Your task to perform on an android device: What's on my calendar today? Image 0: 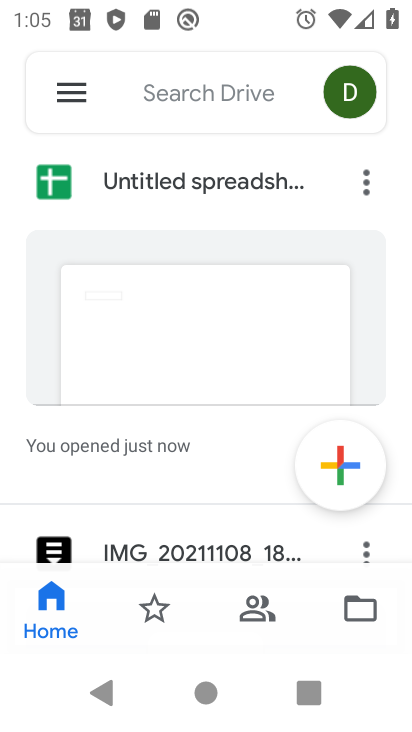
Step 0: press back button
Your task to perform on an android device: What's on my calendar today? Image 1: 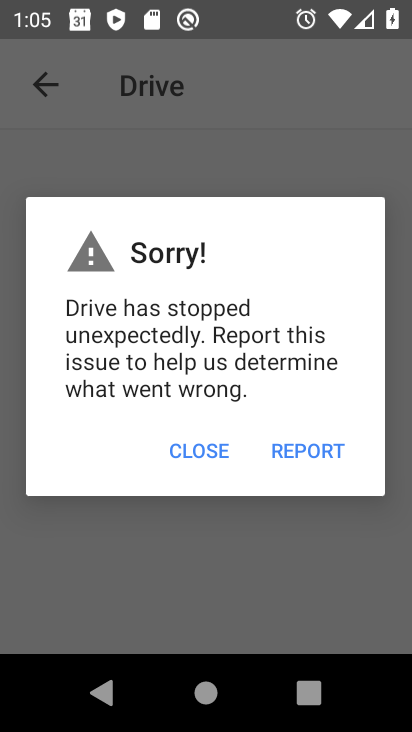
Step 1: press back button
Your task to perform on an android device: What's on my calendar today? Image 2: 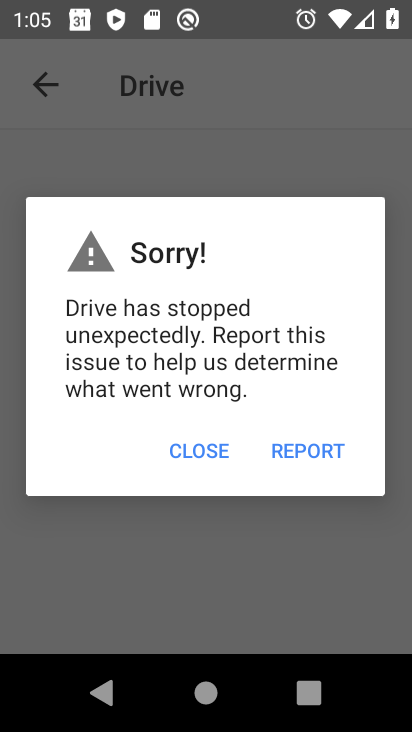
Step 2: press home button
Your task to perform on an android device: What's on my calendar today? Image 3: 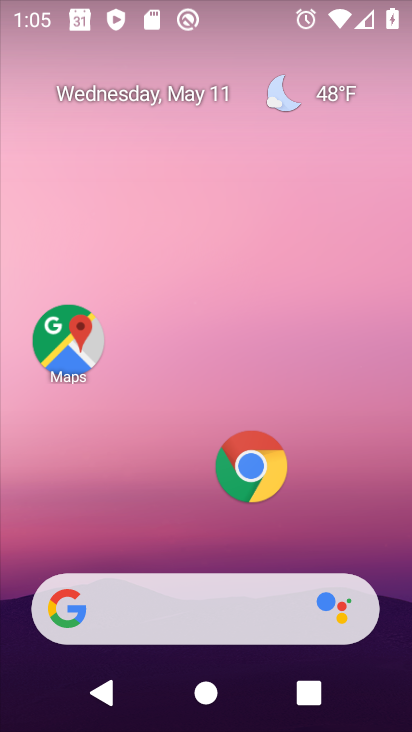
Step 3: drag from (127, 458) to (249, 4)
Your task to perform on an android device: What's on my calendar today? Image 4: 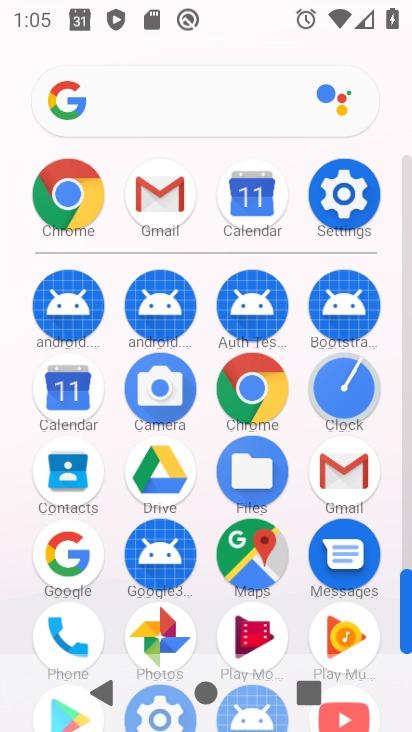
Step 4: click (258, 199)
Your task to perform on an android device: What's on my calendar today? Image 5: 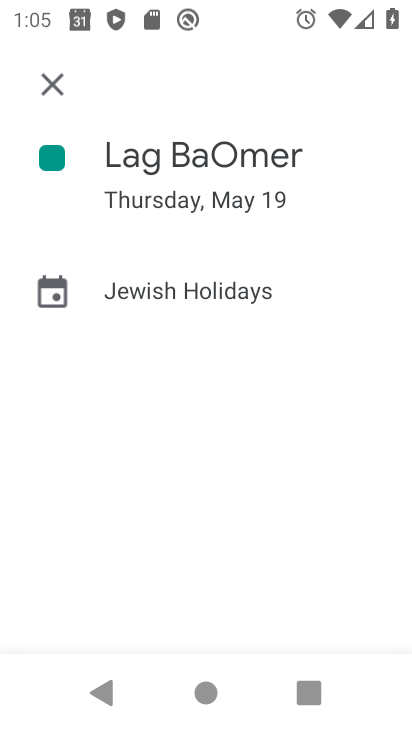
Step 5: click (50, 72)
Your task to perform on an android device: What's on my calendar today? Image 6: 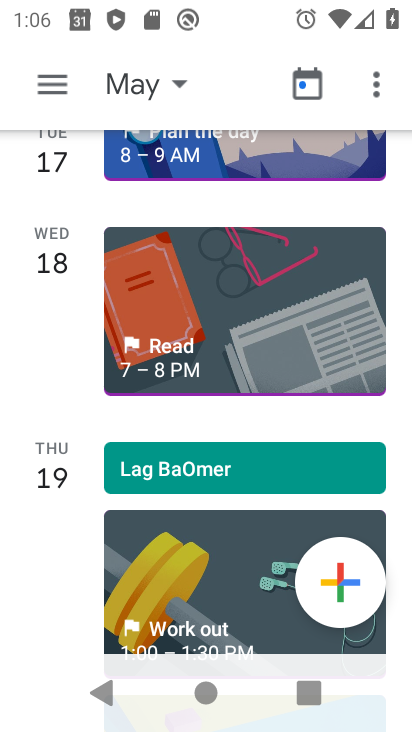
Step 6: drag from (250, 184) to (181, 656)
Your task to perform on an android device: What's on my calendar today? Image 7: 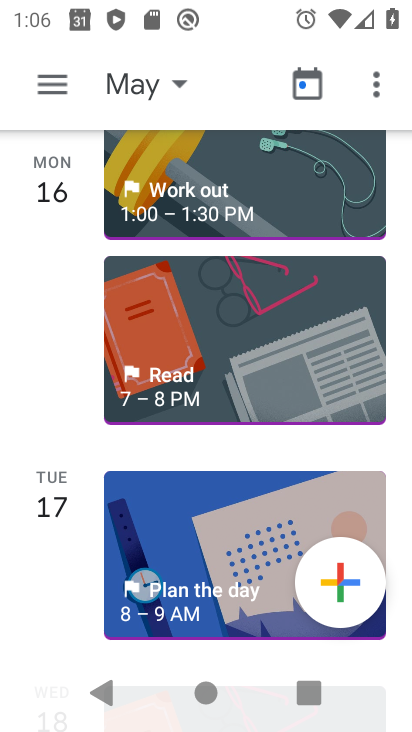
Step 7: drag from (244, 256) to (177, 678)
Your task to perform on an android device: What's on my calendar today? Image 8: 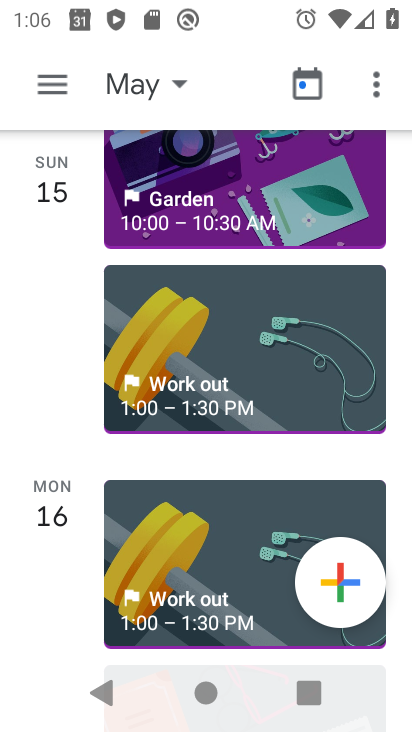
Step 8: drag from (248, 240) to (184, 628)
Your task to perform on an android device: What's on my calendar today? Image 9: 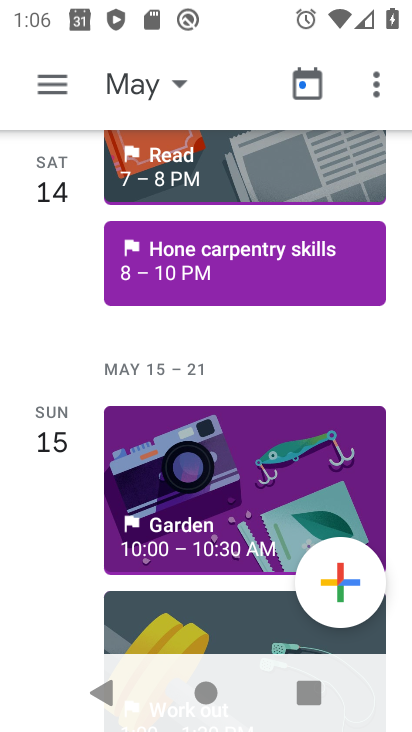
Step 9: drag from (211, 252) to (147, 700)
Your task to perform on an android device: What's on my calendar today? Image 10: 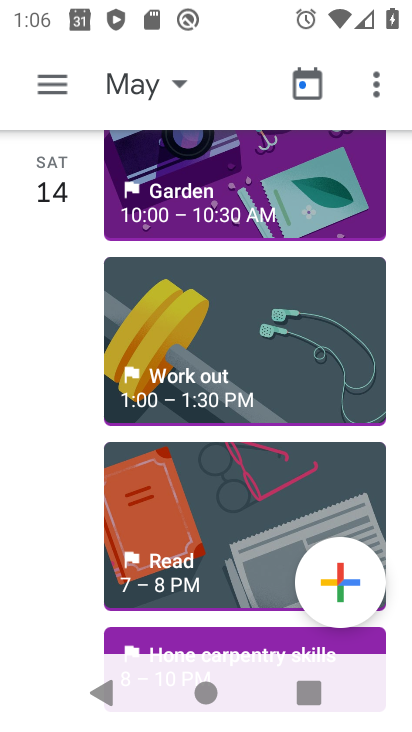
Step 10: drag from (176, 194) to (105, 632)
Your task to perform on an android device: What's on my calendar today? Image 11: 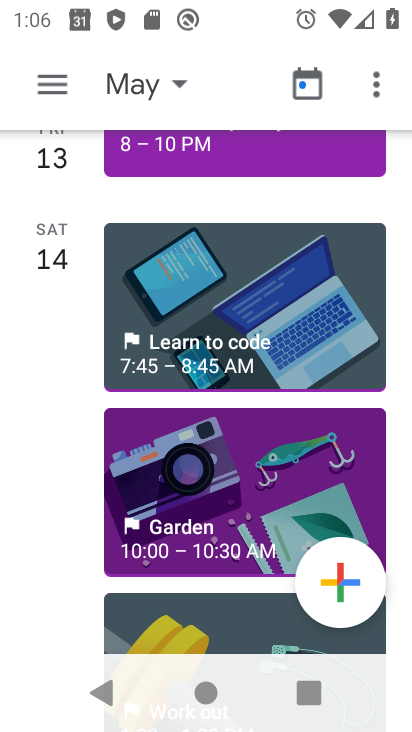
Step 11: drag from (243, 331) to (213, 537)
Your task to perform on an android device: What's on my calendar today? Image 12: 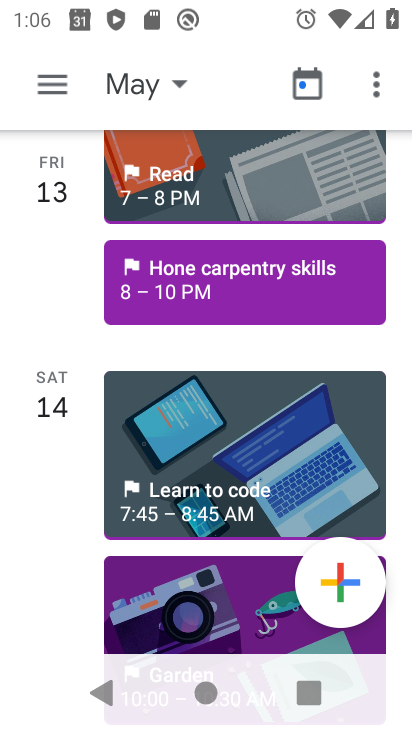
Step 12: drag from (193, 248) to (166, 719)
Your task to perform on an android device: What's on my calendar today? Image 13: 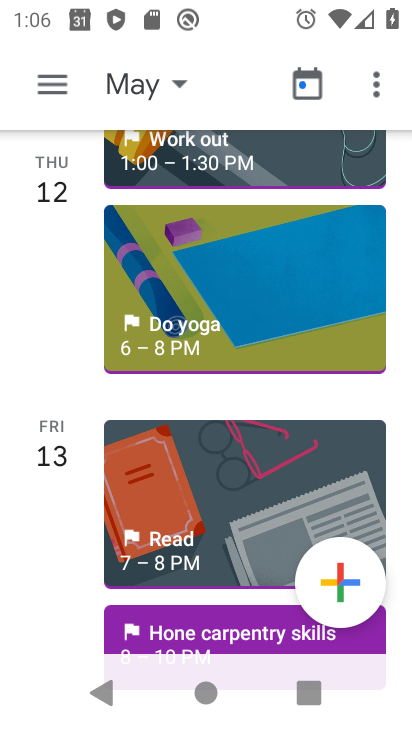
Step 13: drag from (194, 240) to (135, 656)
Your task to perform on an android device: What's on my calendar today? Image 14: 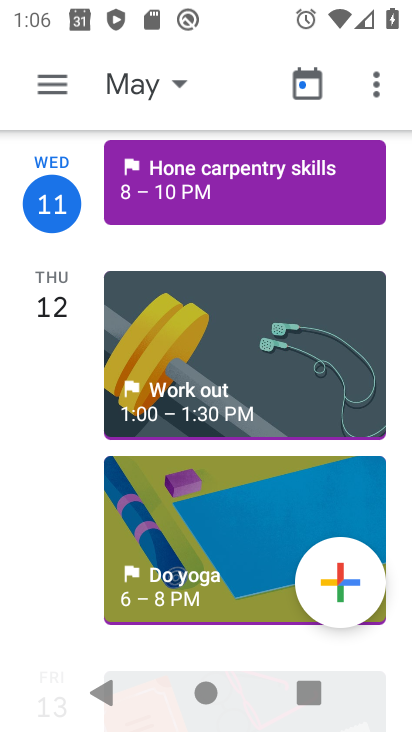
Step 14: drag from (254, 331) to (209, 598)
Your task to perform on an android device: What's on my calendar today? Image 15: 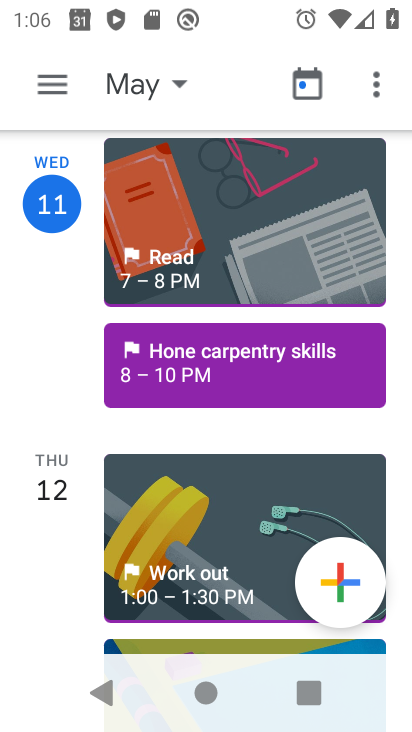
Step 15: click (191, 359)
Your task to perform on an android device: What's on my calendar today? Image 16: 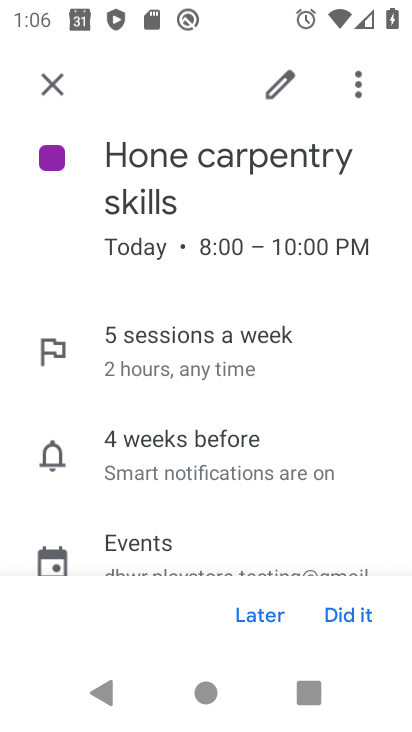
Step 16: task complete